Your task to perform on an android device: open a new tab in the chrome app Image 0: 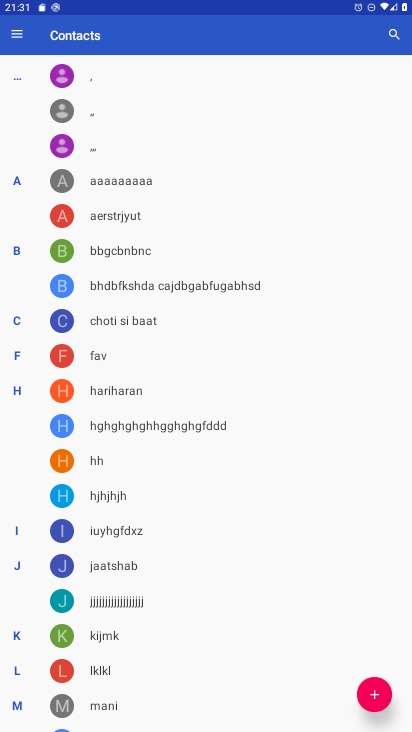
Step 0: press home button
Your task to perform on an android device: open a new tab in the chrome app Image 1: 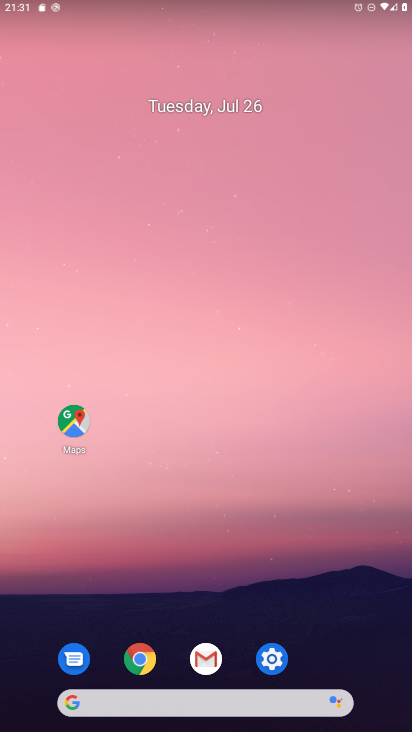
Step 1: click (161, 666)
Your task to perform on an android device: open a new tab in the chrome app Image 2: 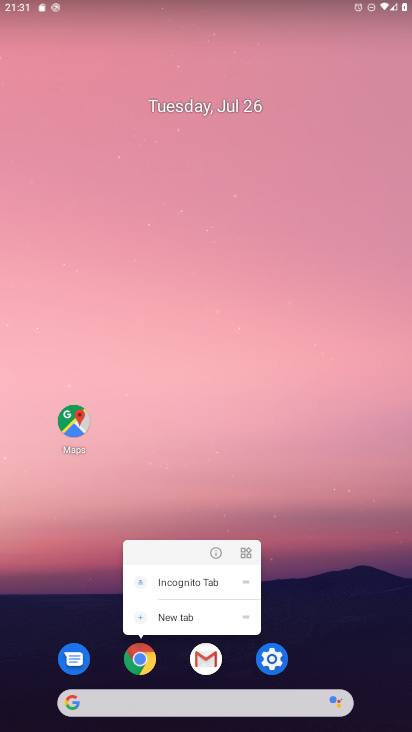
Step 2: click (143, 661)
Your task to perform on an android device: open a new tab in the chrome app Image 3: 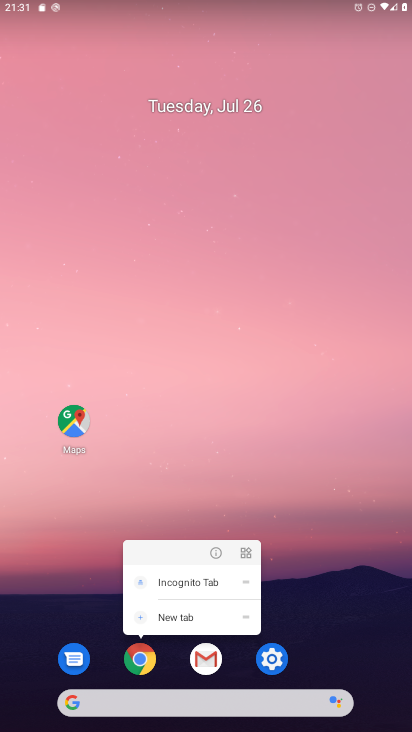
Step 3: click (143, 661)
Your task to perform on an android device: open a new tab in the chrome app Image 4: 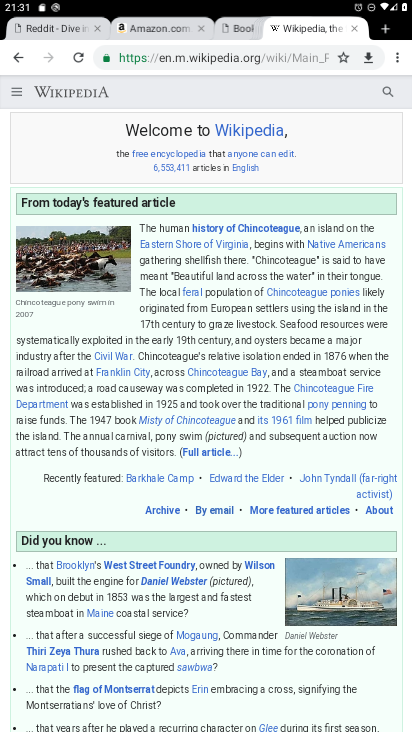
Step 4: click (382, 28)
Your task to perform on an android device: open a new tab in the chrome app Image 5: 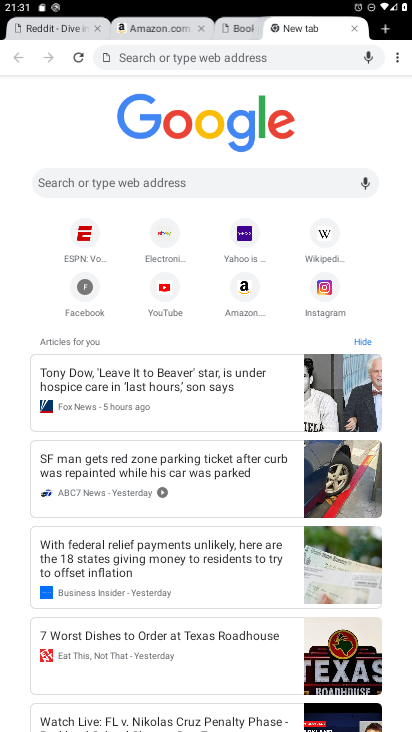
Step 5: task complete